Your task to perform on an android device: add a contact in the contacts app Image 0: 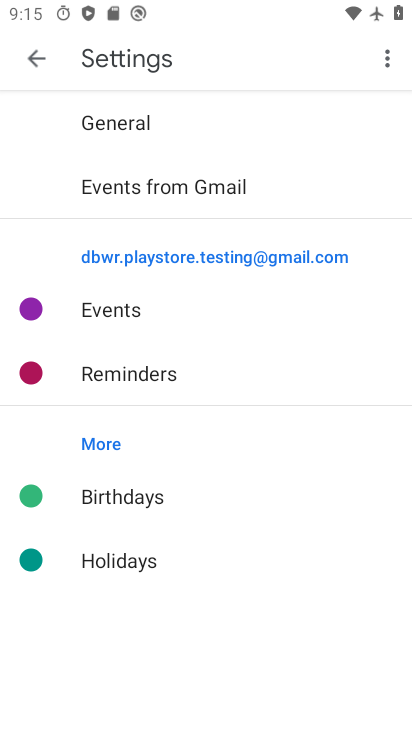
Step 0: press home button
Your task to perform on an android device: add a contact in the contacts app Image 1: 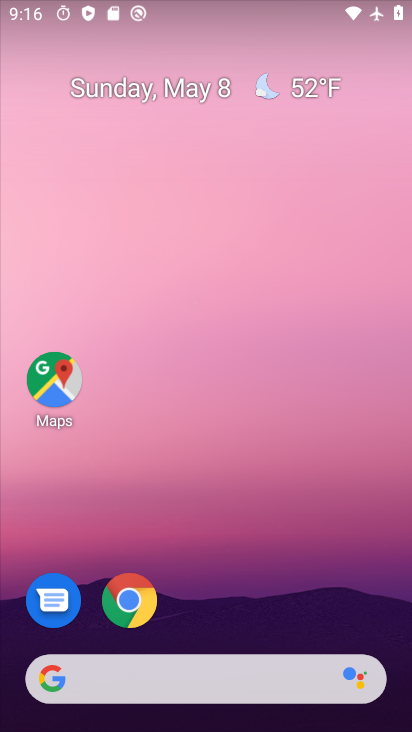
Step 1: drag from (245, 593) to (246, 197)
Your task to perform on an android device: add a contact in the contacts app Image 2: 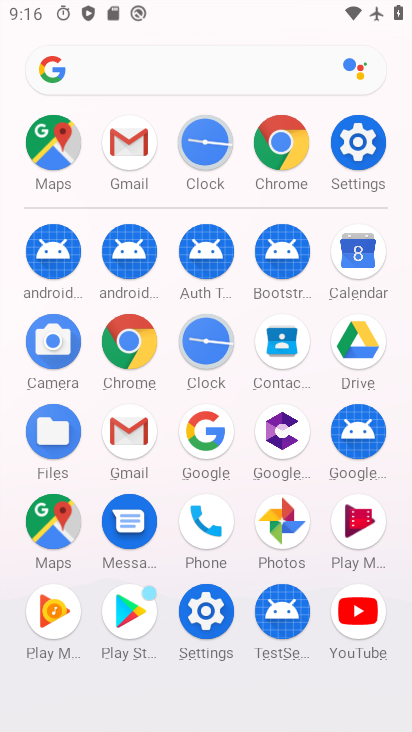
Step 2: click (272, 356)
Your task to perform on an android device: add a contact in the contacts app Image 3: 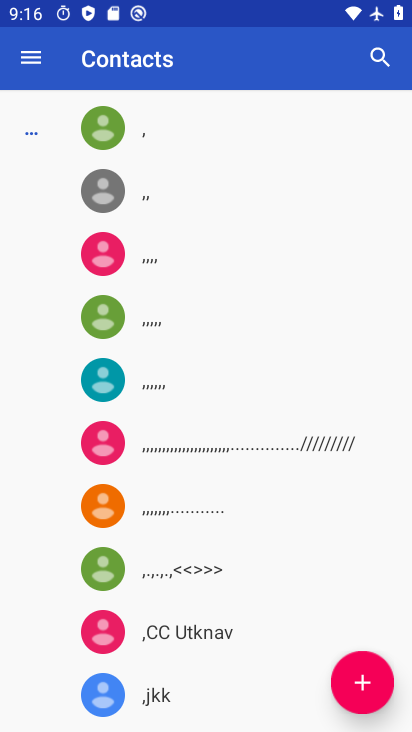
Step 3: click (358, 694)
Your task to perform on an android device: add a contact in the contacts app Image 4: 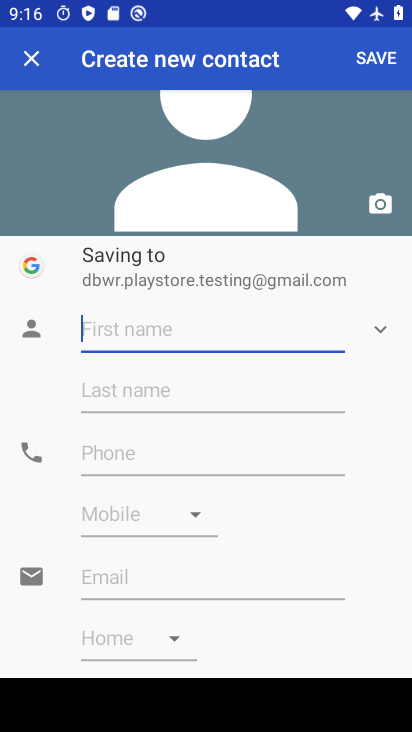
Step 4: click (187, 326)
Your task to perform on an android device: add a contact in the contacts app Image 5: 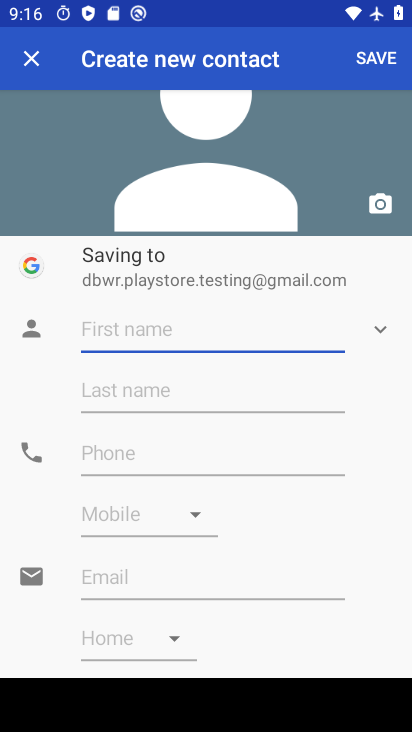
Step 5: type "ritu"
Your task to perform on an android device: add a contact in the contacts app Image 6: 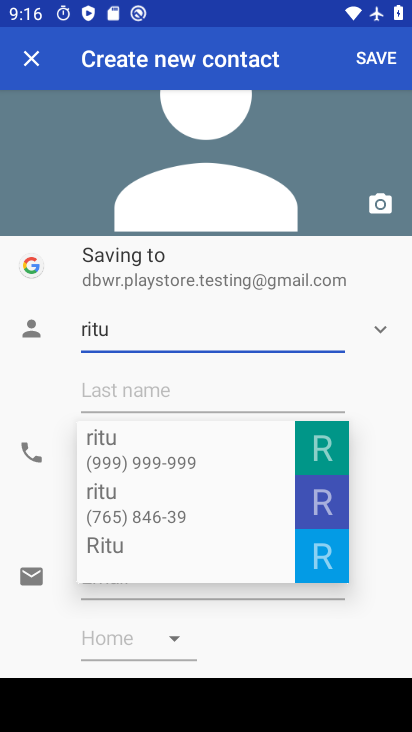
Step 6: type "cab"
Your task to perform on an android device: add a contact in the contacts app Image 7: 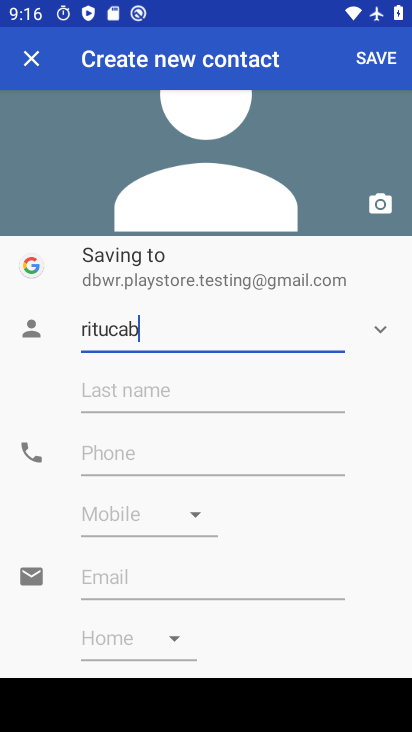
Step 7: click (196, 455)
Your task to perform on an android device: add a contact in the contacts app Image 8: 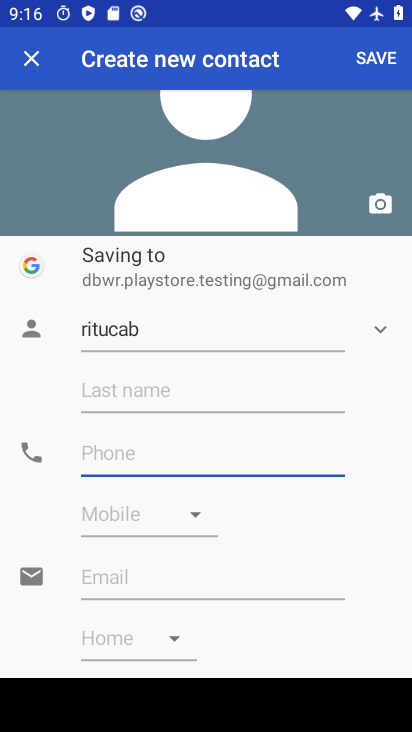
Step 8: type "8796758766"
Your task to perform on an android device: add a contact in the contacts app Image 9: 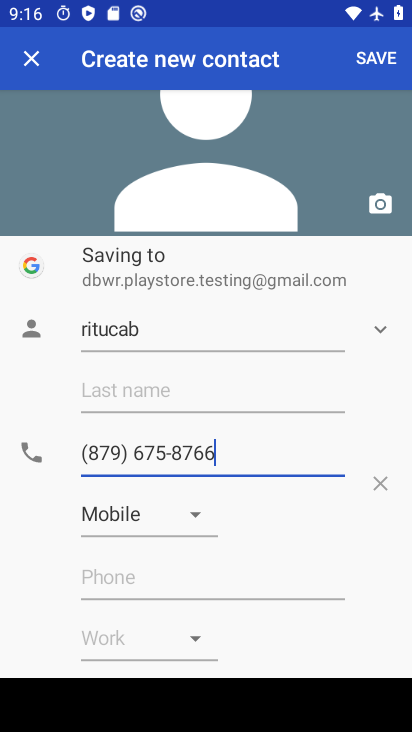
Step 9: click (364, 58)
Your task to perform on an android device: add a contact in the contacts app Image 10: 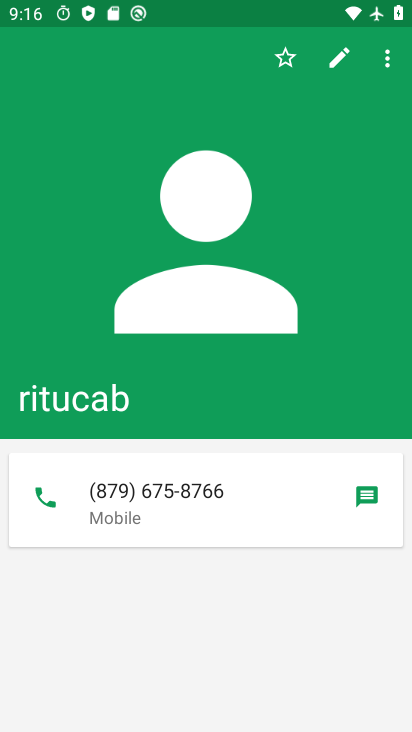
Step 10: task complete